Your task to perform on an android device: uninstall "Indeed Job Search" Image 0: 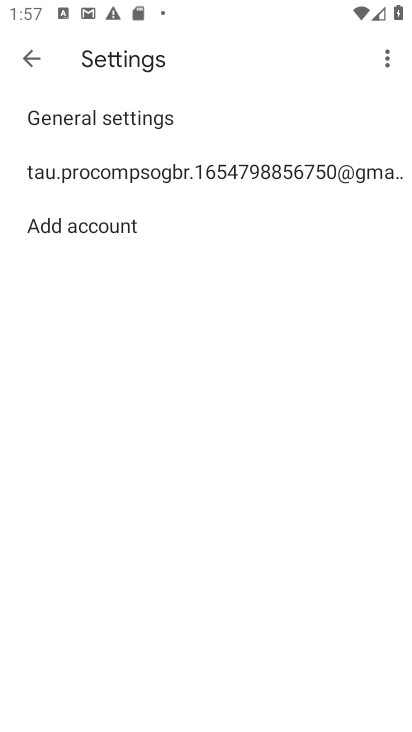
Step 0: task complete